Your task to perform on an android device: check android version Image 0: 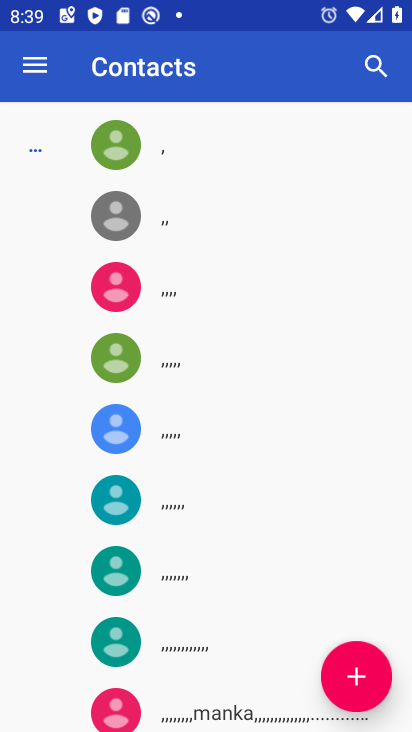
Step 0: press home button
Your task to perform on an android device: check android version Image 1: 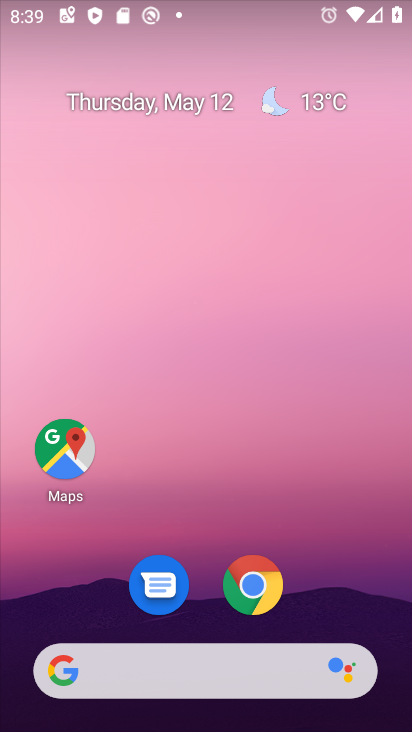
Step 1: drag from (199, 438) to (158, 60)
Your task to perform on an android device: check android version Image 2: 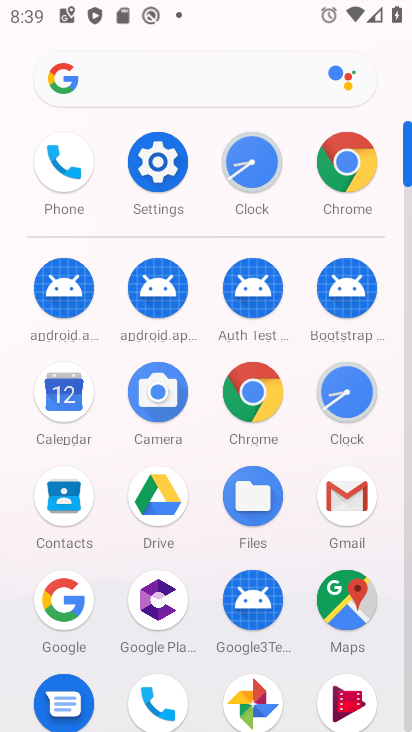
Step 2: click (160, 169)
Your task to perform on an android device: check android version Image 3: 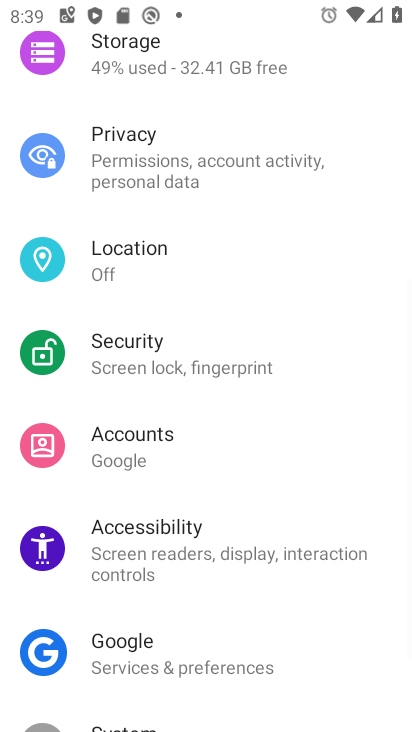
Step 3: drag from (243, 574) to (228, 122)
Your task to perform on an android device: check android version Image 4: 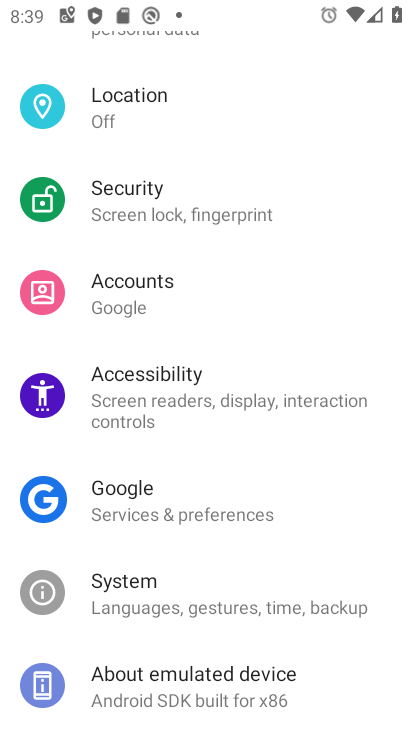
Step 4: click (208, 682)
Your task to perform on an android device: check android version Image 5: 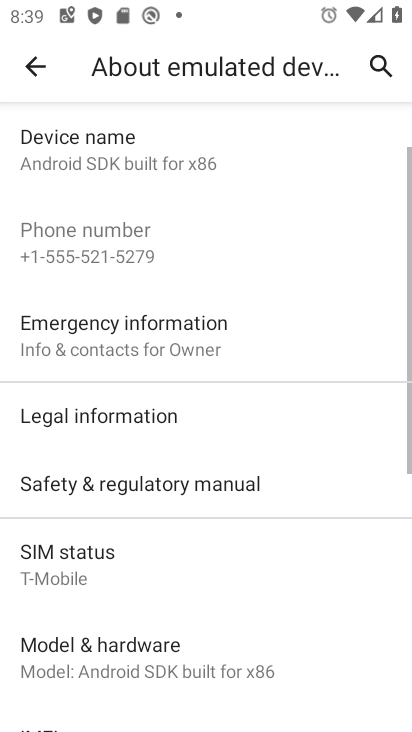
Step 5: drag from (159, 575) to (151, 287)
Your task to perform on an android device: check android version Image 6: 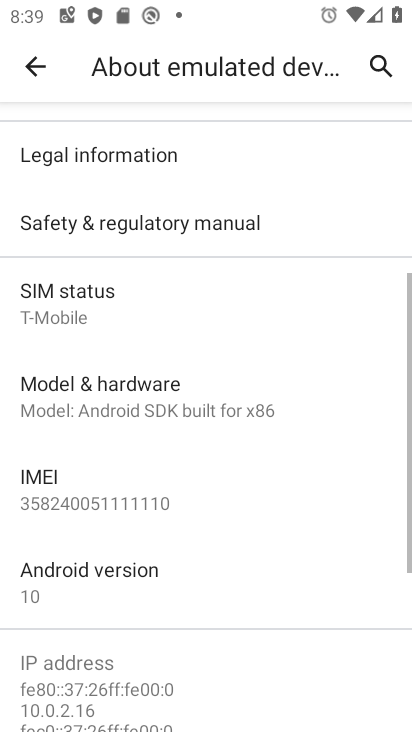
Step 6: click (128, 583)
Your task to perform on an android device: check android version Image 7: 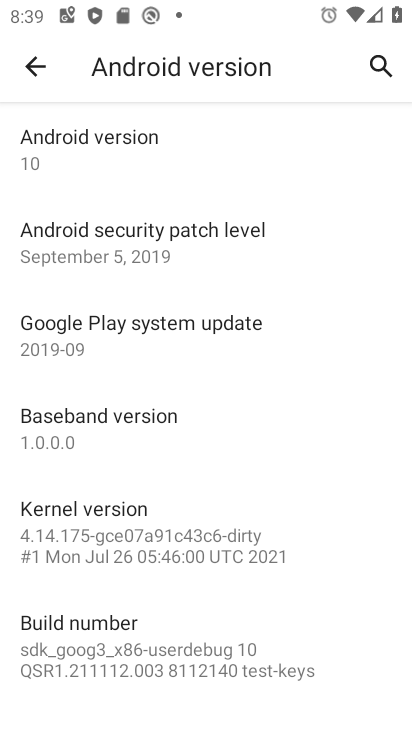
Step 7: task complete